Your task to perform on an android device: Search for bose soundlink on amazon.com, select the first entry, and add it to the cart. Image 0: 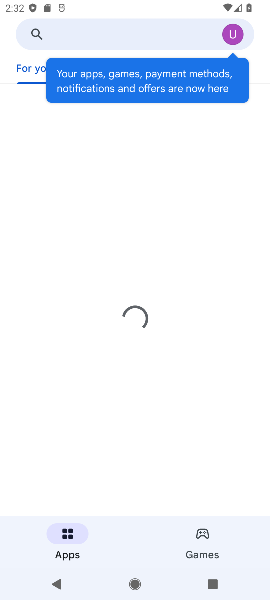
Step 0: press home button
Your task to perform on an android device: Search for bose soundlink on amazon.com, select the first entry, and add it to the cart. Image 1: 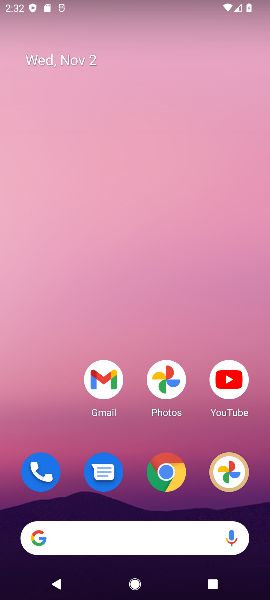
Step 1: click (174, 479)
Your task to perform on an android device: Search for bose soundlink on amazon.com, select the first entry, and add it to the cart. Image 2: 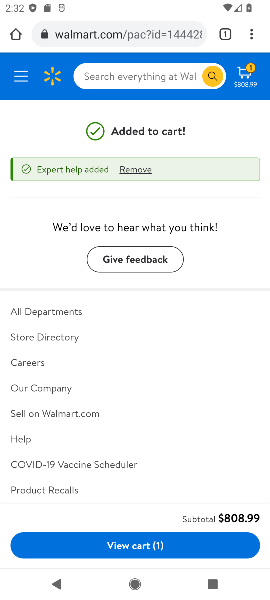
Step 2: click (150, 29)
Your task to perform on an android device: Search for bose soundlink on amazon.com, select the first entry, and add it to the cart. Image 3: 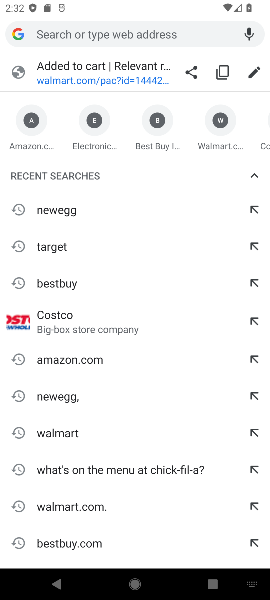
Step 3: type "amazon.com"
Your task to perform on an android device: Search for bose soundlink on amazon.com, select the first entry, and add it to the cart. Image 4: 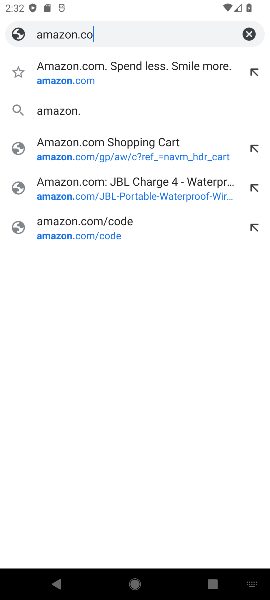
Step 4: type ""
Your task to perform on an android device: Search for bose soundlink on amazon.com, select the first entry, and add it to the cart. Image 5: 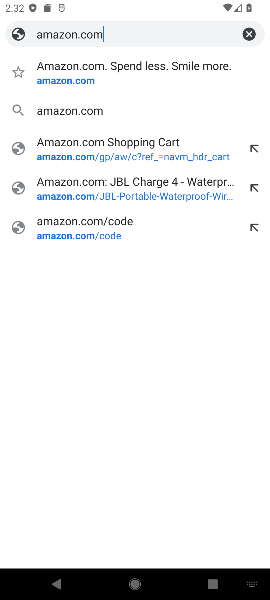
Step 5: click (150, 74)
Your task to perform on an android device: Search for bose soundlink on amazon.com, select the first entry, and add it to the cart. Image 6: 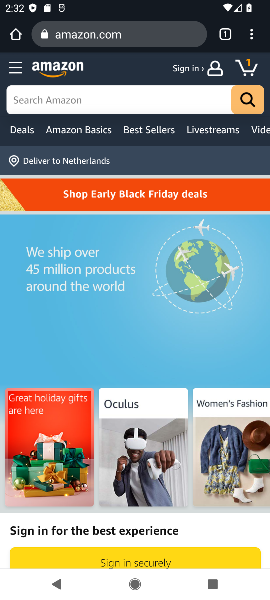
Step 6: click (110, 107)
Your task to perform on an android device: Search for bose soundlink on amazon.com, select the first entry, and add it to the cart. Image 7: 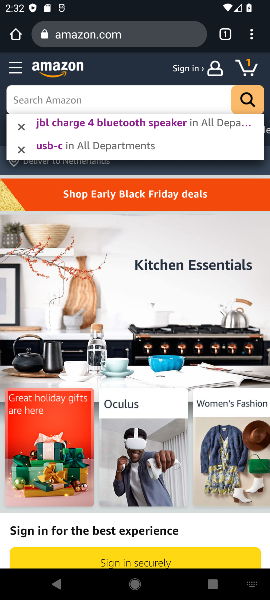
Step 7: type "bose soundlink"
Your task to perform on an android device: Search for bose soundlink on amazon.com, select the first entry, and add it to the cart. Image 8: 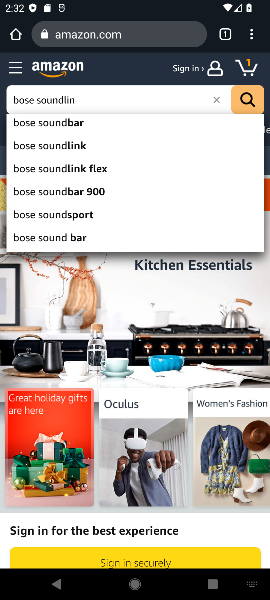
Step 8: type ""
Your task to perform on an android device: Search for bose soundlink on amazon.com, select the first entry, and add it to the cart. Image 9: 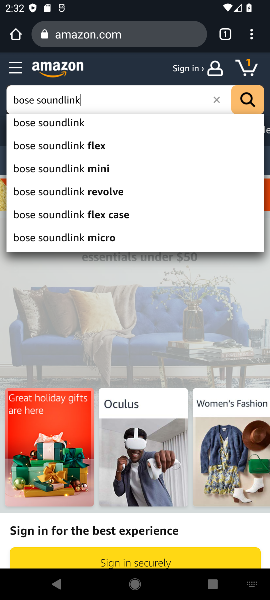
Step 9: click (30, 130)
Your task to perform on an android device: Search for bose soundlink on amazon.com, select the first entry, and add it to the cart. Image 10: 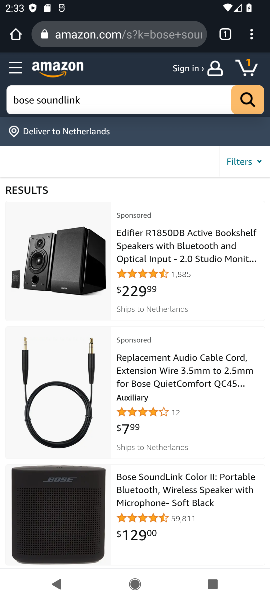
Step 10: click (146, 490)
Your task to perform on an android device: Search for bose soundlink on amazon.com, select the first entry, and add it to the cart. Image 11: 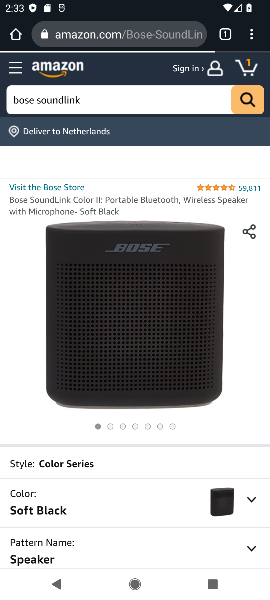
Step 11: drag from (166, 456) to (136, 256)
Your task to perform on an android device: Search for bose soundlink on amazon.com, select the first entry, and add it to the cart. Image 12: 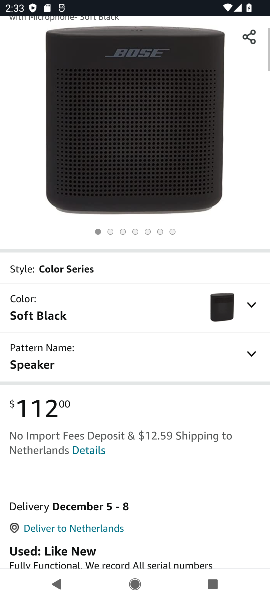
Step 12: drag from (127, 499) to (137, 261)
Your task to perform on an android device: Search for bose soundlink on amazon.com, select the first entry, and add it to the cart. Image 13: 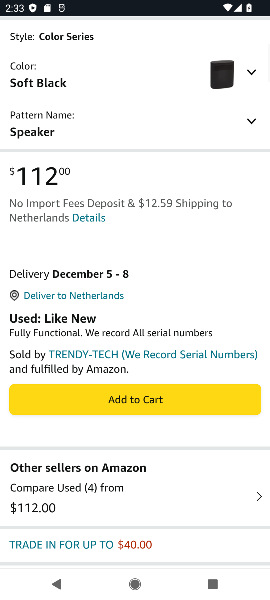
Step 13: click (145, 406)
Your task to perform on an android device: Search for bose soundlink on amazon.com, select the first entry, and add it to the cart. Image 14: 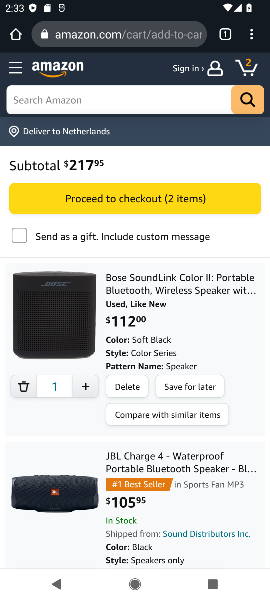
Step 14: click (162, 205)
Your task to perform on an android device: Search for bose soundlink on amazon.com, select the first entry, and add it to the cart. Image 15: 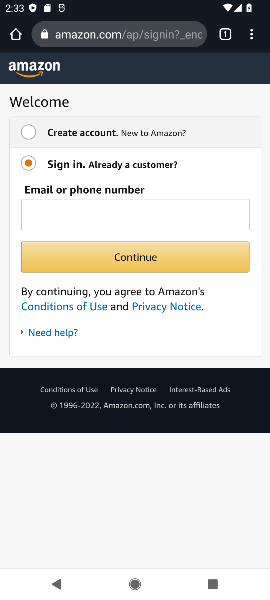
Step 15: press back button
Your task to perform on an android device: Search for bose soundlink on amazon.com, select the first entry, and add it to the cart. Image 16: 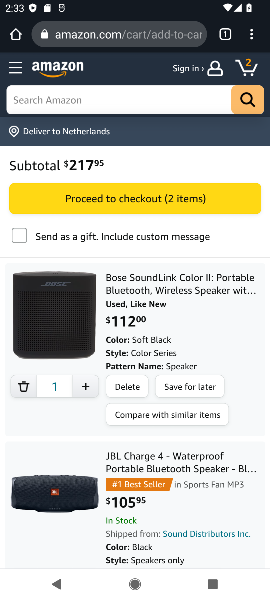
Step 16: drag from (96, 487) to (117, 256)
Your task to perform on an android device: Search for bose soundlink on amazon.com, select the first entry, and add it to the cart. Image 17: 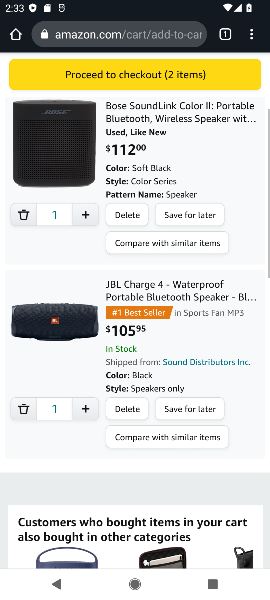
Step 17: drag from (134, 434) to (146, 230)
Your task to perform on an android device: Search for bose soundlink on amazon.com, select the first entry, and add it to the cart. Image 18: 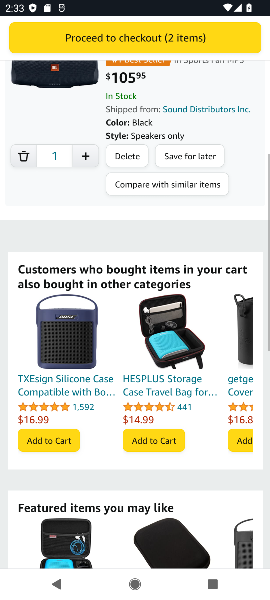
Step 18: drag from (155, 314) to (151, 273)
Your task to perform on an android device: Search for bose soundlink on amazon.com, select the first entry, and add it to the cart. Image 19: 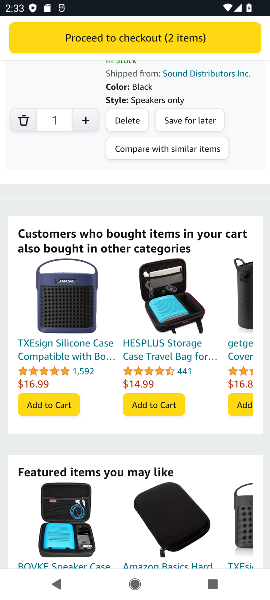
Step 19: drag from (118, 250) to (95, 136)
Your task to perform on an android device: Search for bose soundlink on amazon.com, select the first entry, and add it to the cart. Image 20: 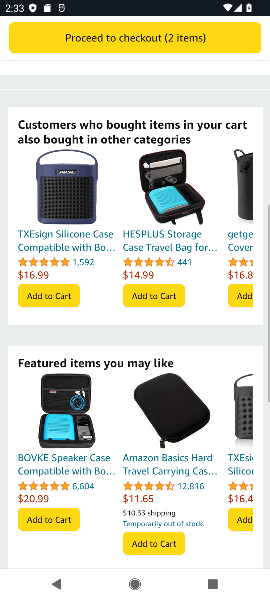
Step 20: click (106, 45)
Your task to perform on an android device: Search for bose soundlink on amazon.com, select the first entry, and add it to the cart. Image 21: 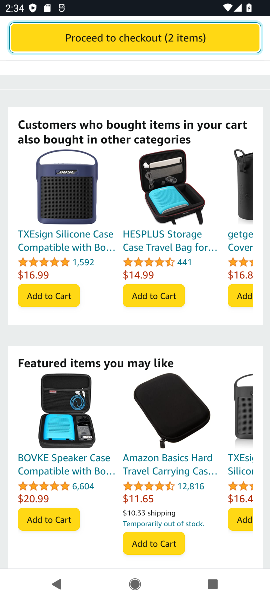
Step 21: task complete